Your task to perform on an android device: set default search engine in the chrome app Image 0: 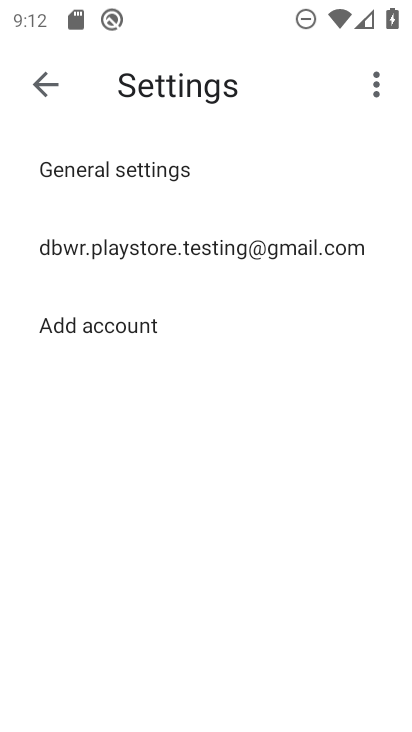
Step 0: press home button
Your task to perform on an android device: set default search engine in the chrome app Image 1: 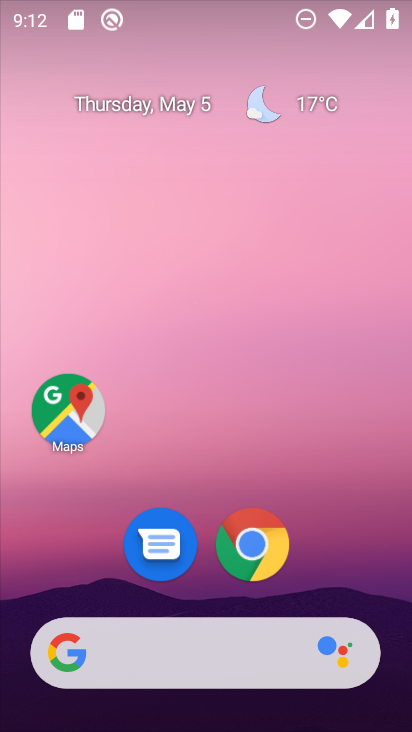
Step 1: drag from (382, 645) to (253, 87)
Your task to perform on an android device: set default search engine in the chrome app Image 2: 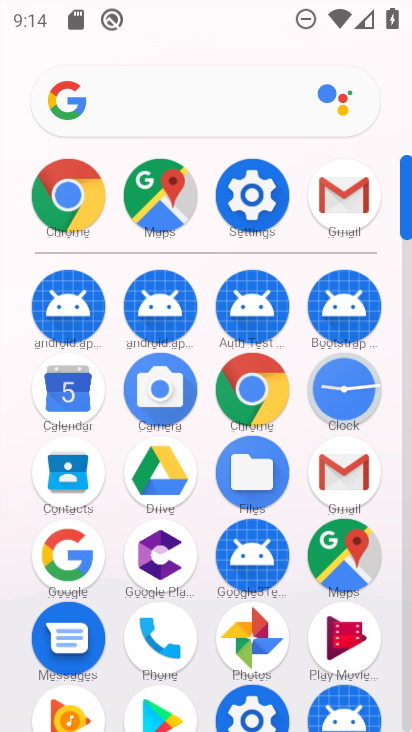
Step 2: click (254, 402)
Your task to perform on an android device: set default search engine in the chrome app Image 3: 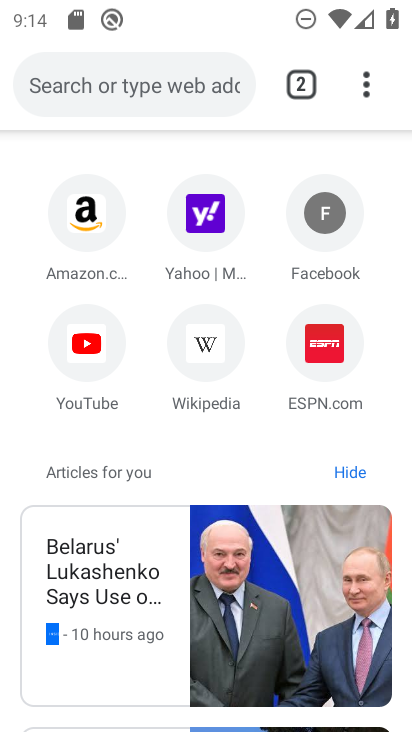
Step 3: click (363, 83)
Your task to perform on an android device: set default search engine in the chrome app Image 4: 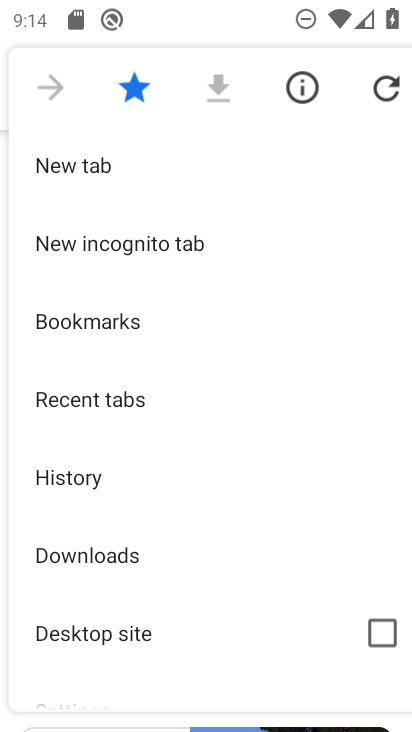
Step 4: drag from (139, 615) to (231, 152)
Your task to perform on an android device: set default search engine in the chrome app Image 5: 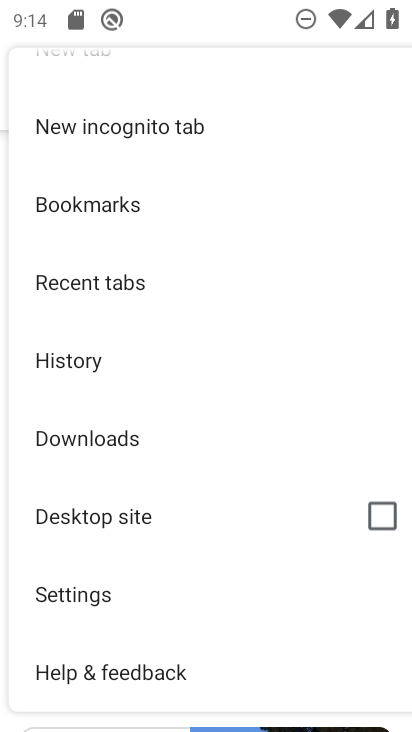
Step 5: click (127, 583)
Your task to perform on an android device: set default search engine in the chrome app Image 6: 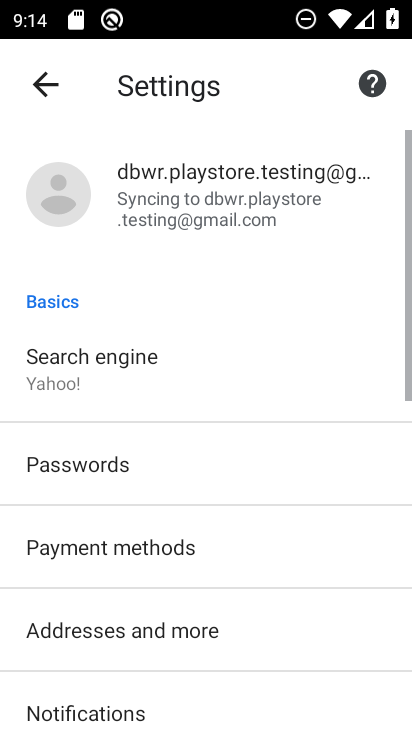
Step 6: click (158, 398)
Your task to perform on an android device: set default search engine in the chrome app Image 7: 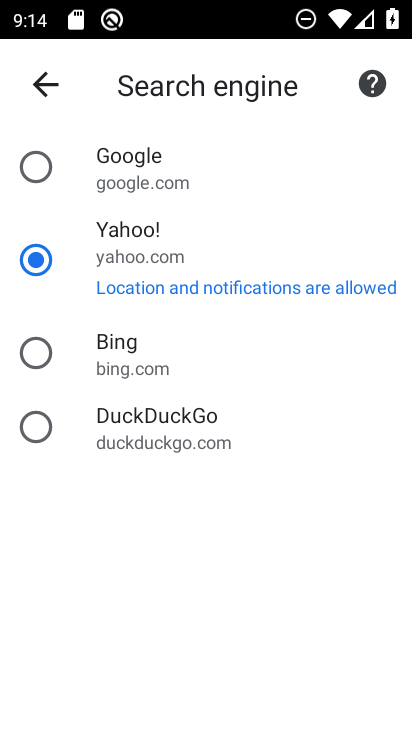
Step 7: click (140, 202)
Your task to perform on an android device: set default search engine in the chrome app Image 8: 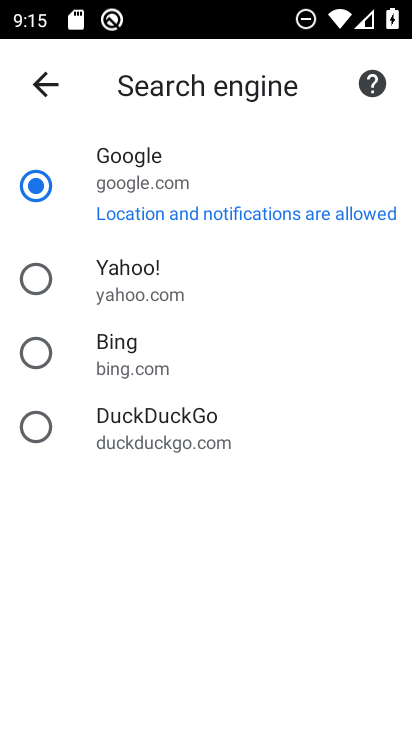
Step 8: task complete